Your task to perform on an android device: Open calendar and show me the first week of next month Image 0: 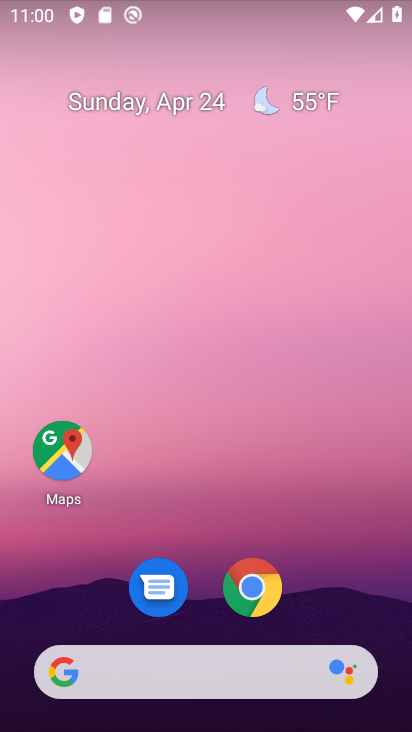
Step 0: drag from (395, 22) to (409, 126)
Your task to perform on an android device: Open calendar and show me the first week of next month Image 1: 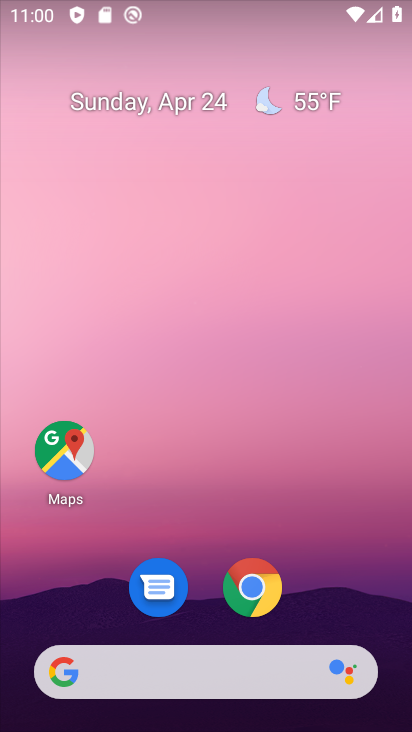
Step 1: drag from (348, 560) to (382, 78)
Your task to perform on an android device: Open calendar and show me the first week of next month Image 2: 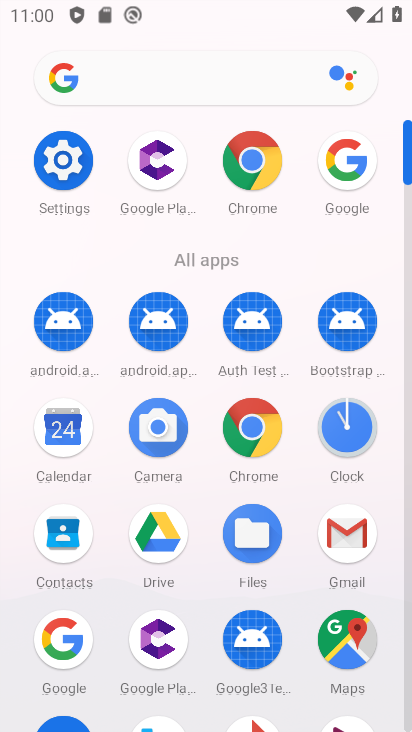
Step 2: click (60, 439)
Your task to perform on an android device: Open calendar and show me the first week of next month Image 3: 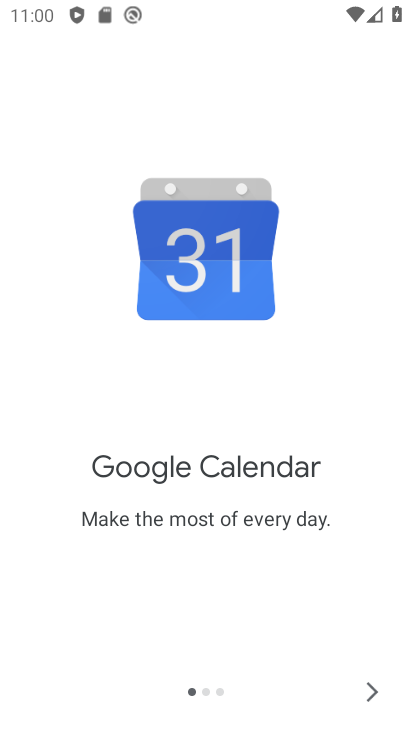
Step 3: click (368, 693)
Your task to perform on an android device: Open calendar and show me the first week of next month Image 4: 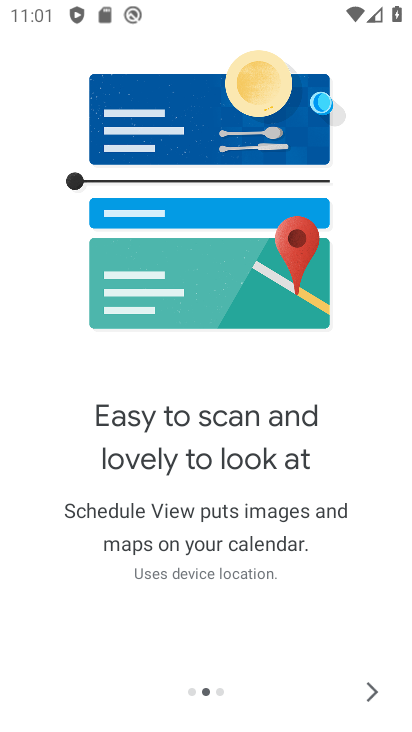
Step 4: click (368, 692)
Your task to perform on an android device: Open calendar and show me the first week of next month Image 5: 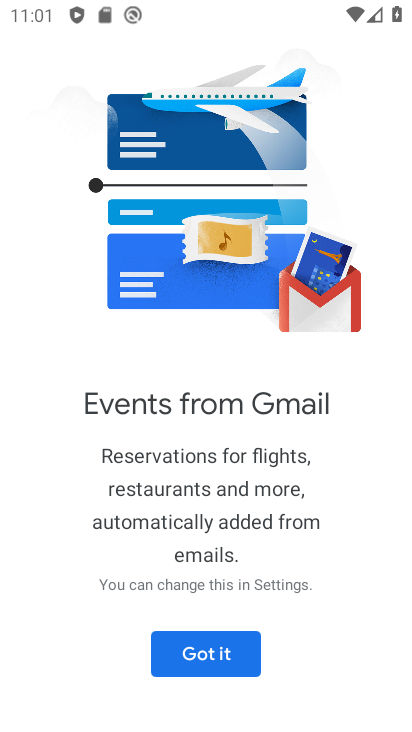
Step 5: click (209, 649)
Your task to perform on an android device: Open calendar and show me the first week of next month Image 6: 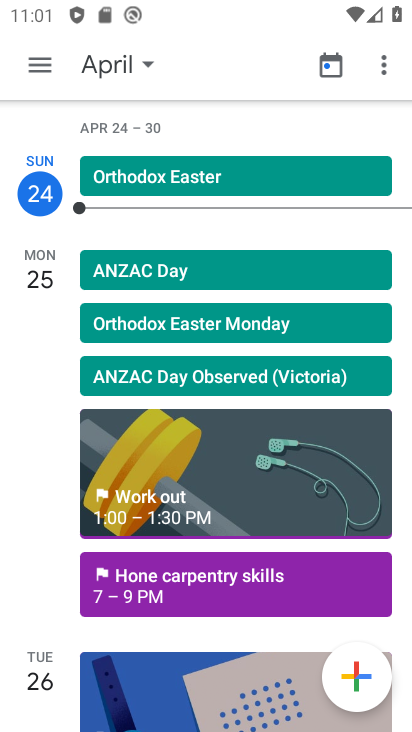
Step 6: click (119, 79)
Your task to perform on an android device: Open calendar and show me the first week of next month Image 7: 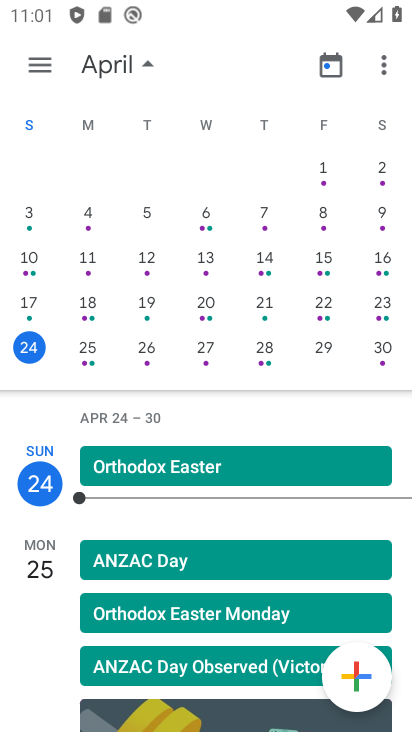
Step 7: drag from (232, 276) to (11, 556)
Your task to perform on an android device: Open calendar and show me the first week of next month Image 8: 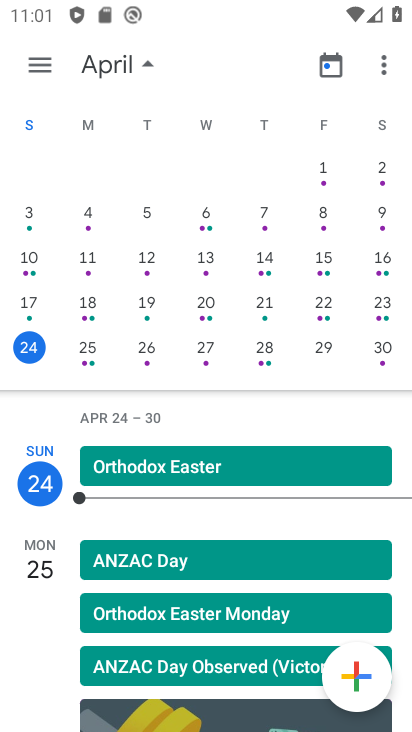
Step 8: drag from (370, 276) to (74, 51)
Your task to perform on an android device: Open calendar and show me the first week of next month Image 9: 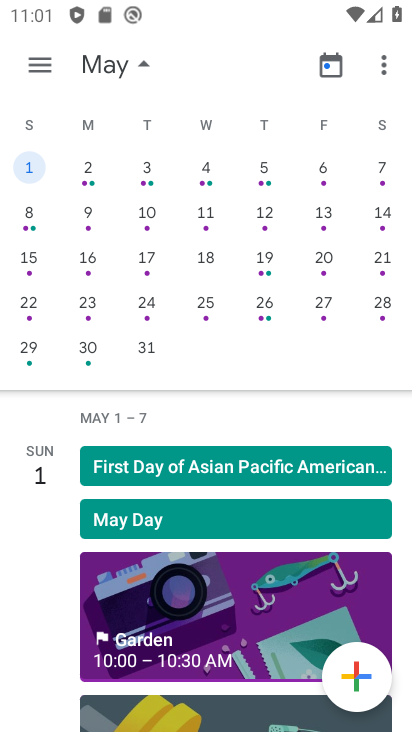
Step 9: click (278, 176)
Your task to perform on an android device: Open calendar and show me the first week of next month Image 10: 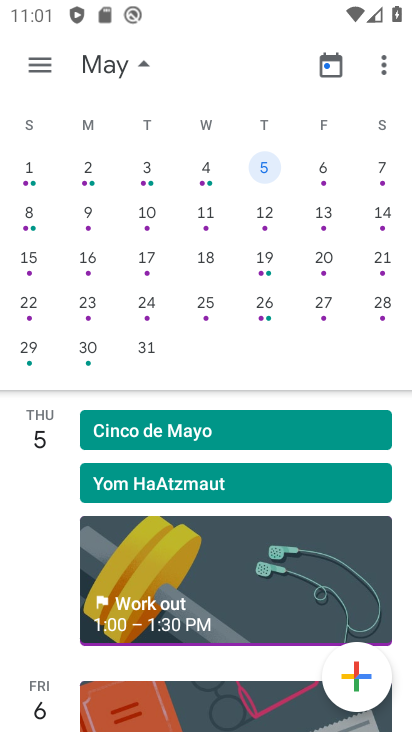
Step 10: task complete